Your task to perform on an android device: turn on translation in the chrome app Image 0: 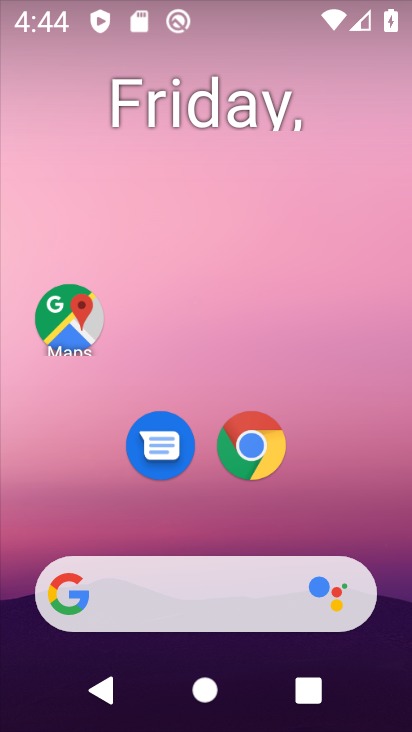
Step 0: drag from (320, 74) to (321, 244)
Your task to perform on an android device: turn on translation in the chrome app Image 1: 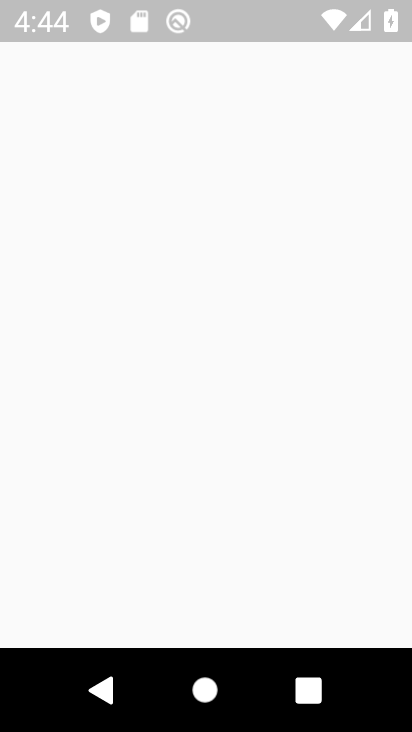
Step 1: press home button
Your task to perform on an android device: turn on translation in the chrome app Image 2: 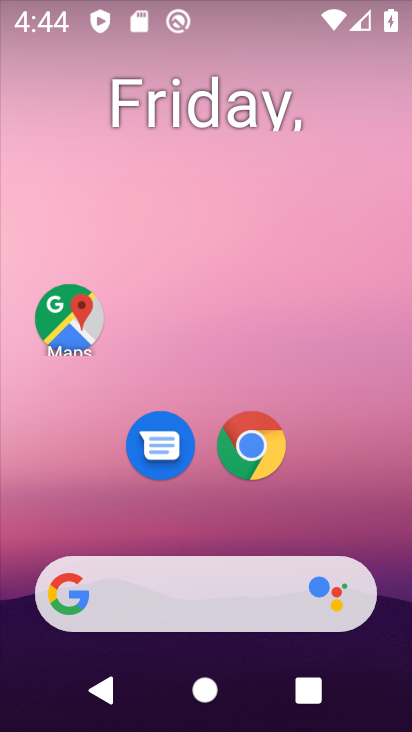
Step 2: drag from (326, 510) to (320, 126)
Your task to perform on an android device: turn on translation in the chrome app Image 3: 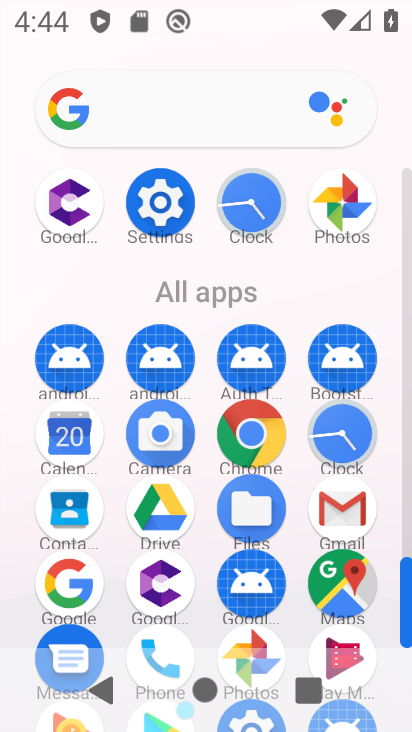
Step 3: click (257, 416)
Your task to perform on an android device: turn on translation in the chrome app Image 4: 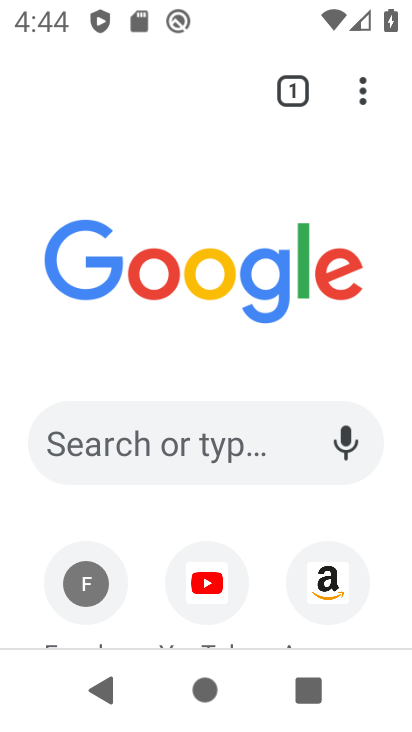
Step 4: click (372, 92)
Your task to perform on an android device: turn on translation in the chrome app Image 5: 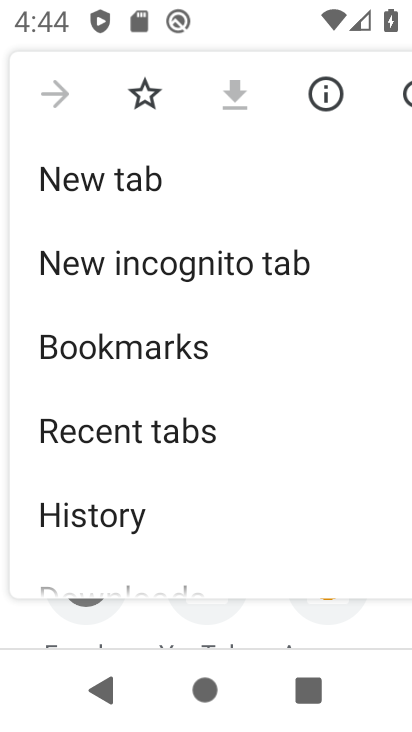
Step 5: drag from (197, 530) to (255, 206)
Your task to perform on an android device: turn on translation in the chrome app Image 6: 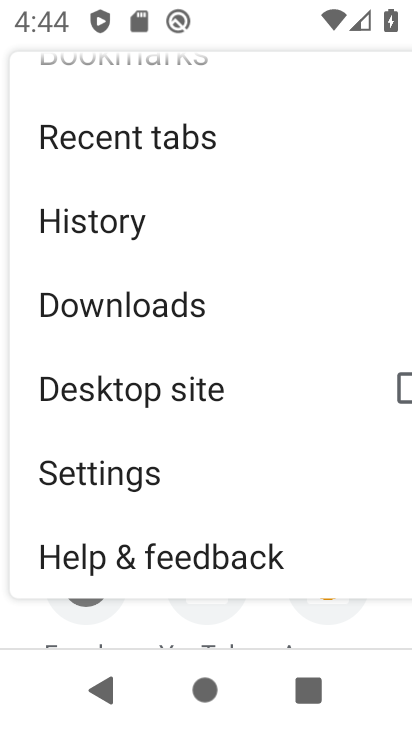
Step 6: click (155, 491)
Your task to perform on an android device: turn on translation in the chrome app Image 7: 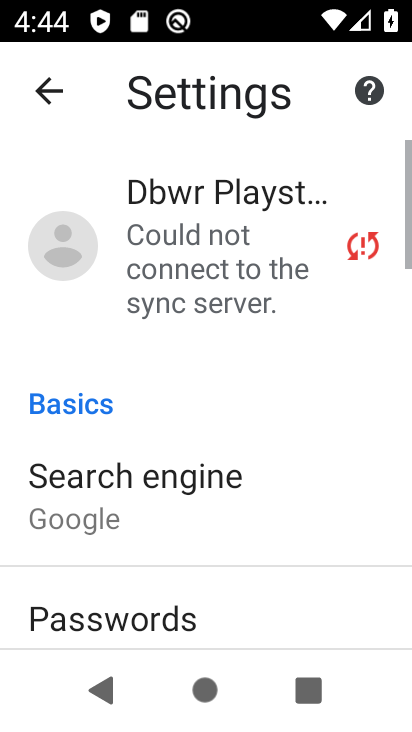
Step 7: task complete